Your task to perform on an android device: turn on bluetooth scan Image 0: 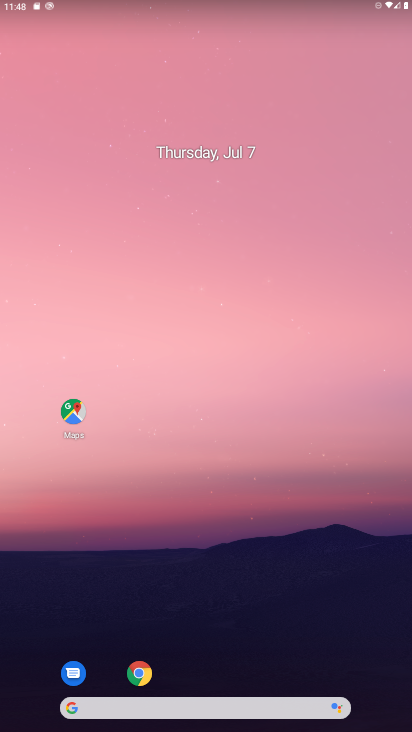
Step 0: drag from (387, 700) to (397, 139)
Your task to perform on an android device: turn on bluetooth scan Image 1: 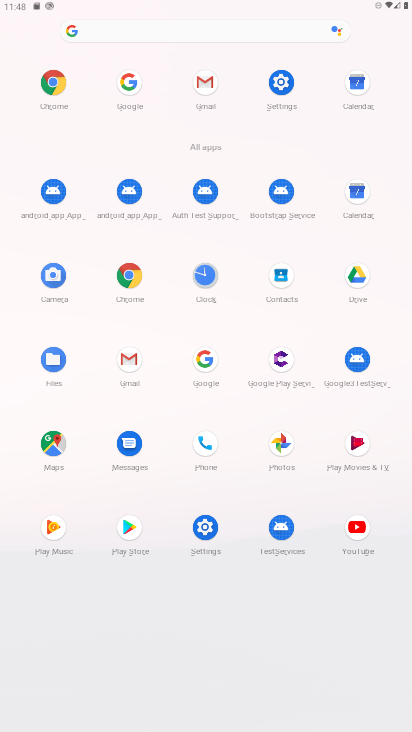
Step 1: click (288, 84)
Your task to perform on an android device: turn on bluetooth scan Image 2: 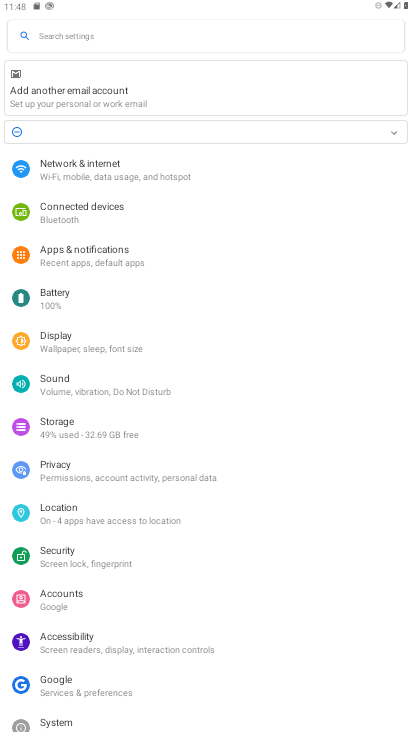
Step 2: click (62, 514)
Your task to perform on an android device: turn on bluetooth scan Image 3: 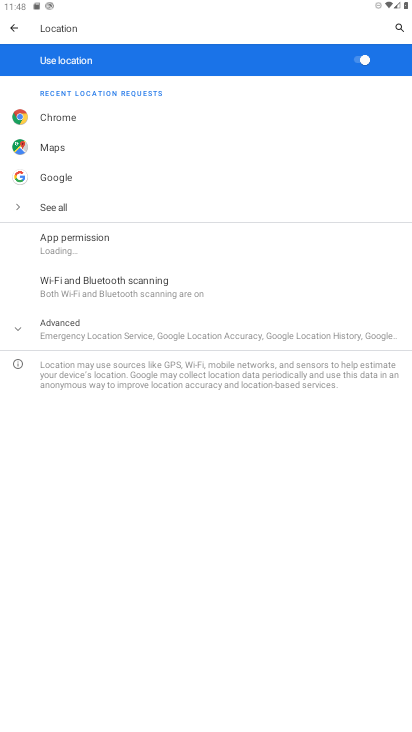
Step 3: click (91, 275)
Your task to perform on an android device: turn on bluetooth scan Image 4: 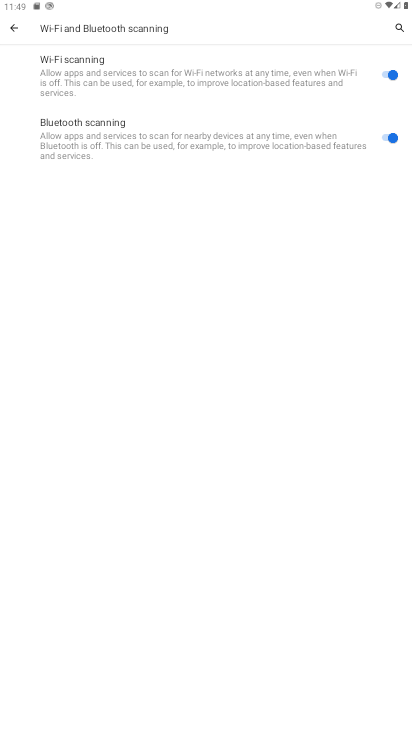
Step 4: task complete